Your task to perform on an android device: remove spam from my inbox in the gmail app Image 0: 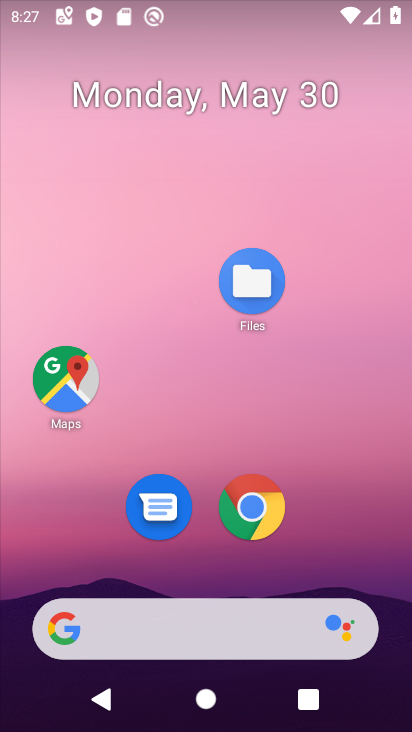
Step 0: drag from (224, 585) to (281, 7)
Your task to perform on an android device: remove spam from my inbox in the gmail app Image 1: 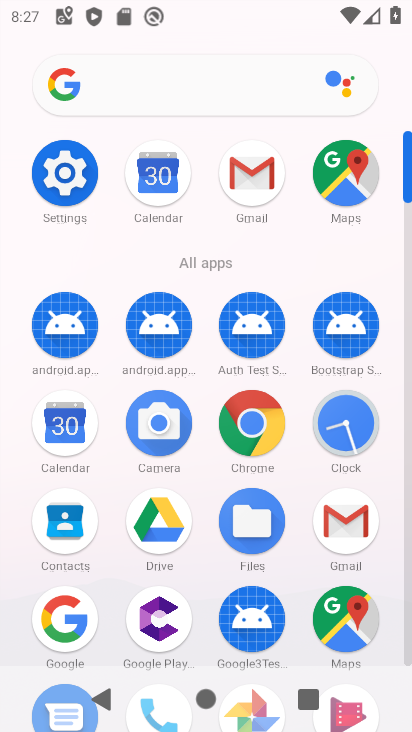
Step 1: click (365, 516)
Your task to perform on an android device: remove spam from my inbox in the gmail app Image 2: 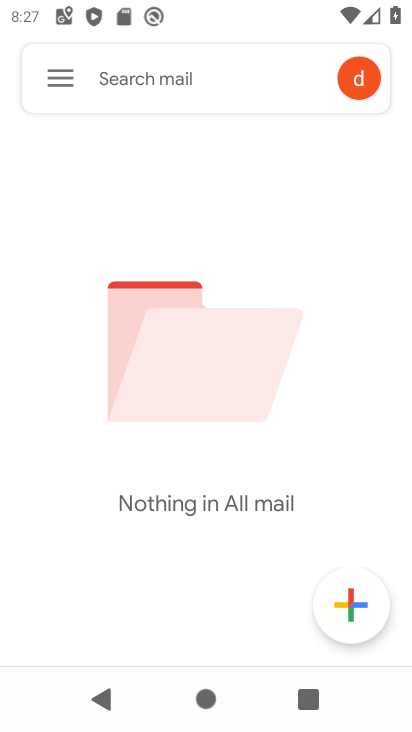
Step 2: click (60, 77)
Your task to perform on an android device: remove spam from my inbox in the gmail app Image 3: 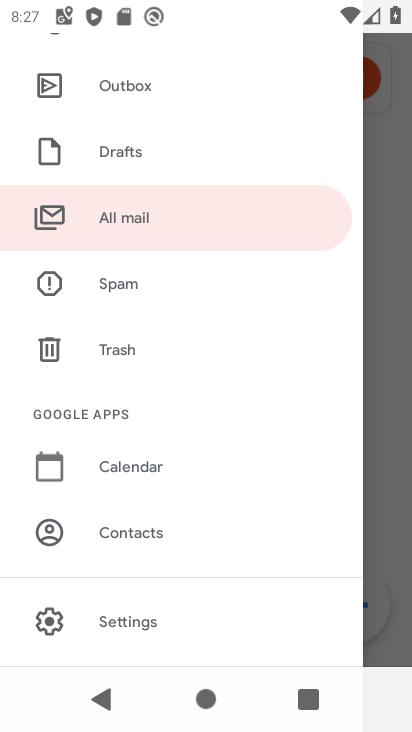
Step 3: click (93, 278)
Your task to perform on an android device: remove spam from my inbox in the gmail app Image 4: 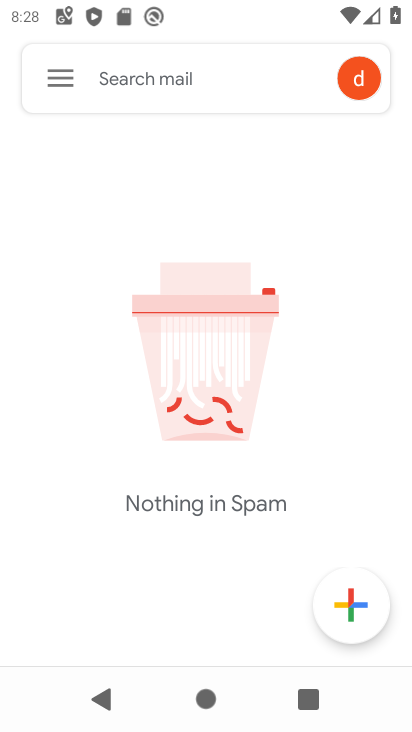
Step 4: task complete